Your task to perform on an android device: Go to notification settings Image 0: 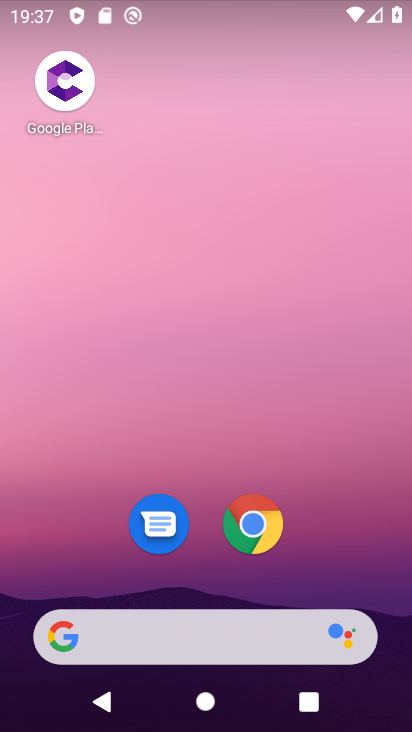
Step 0: drag from (316, 508) to (301, 61)
Your task to perform on an android device: Go to notification settings Image 1: 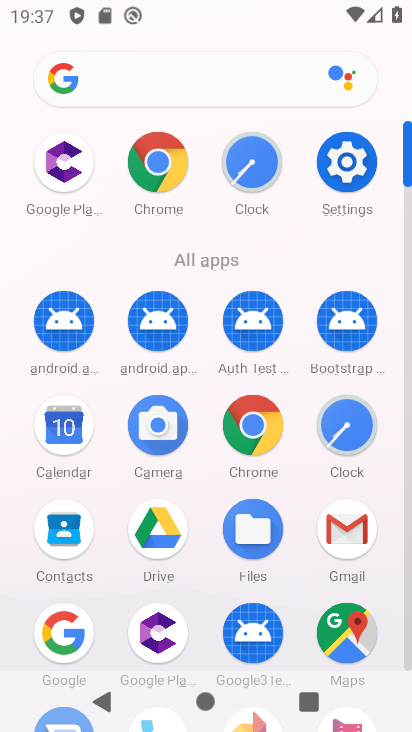
Step 1: click (346, 164)
Your task to perform on an android device: Go to notification settings Image 2: 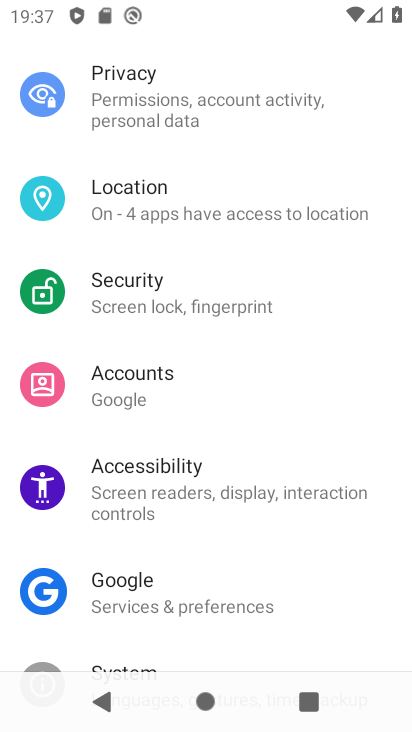
Step 2: drag from (250, 148) to (235, 550)
Your task to perform on an android device: Go to notification settings Image 3: 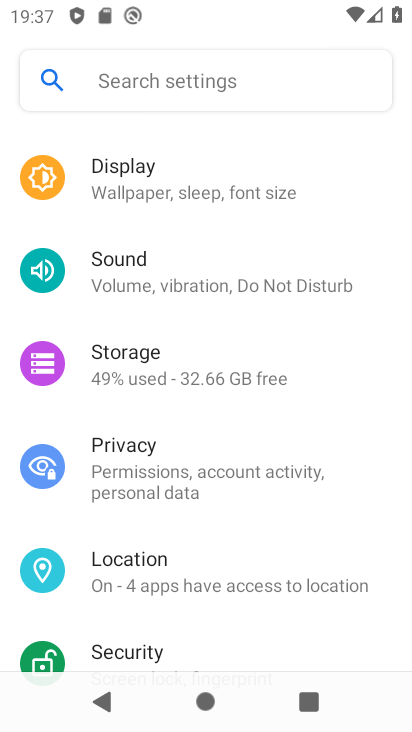
Step 3: drag from (220, 241) to (213, 536)
Your task to perform on an android device: Go to notification settings Image 4: 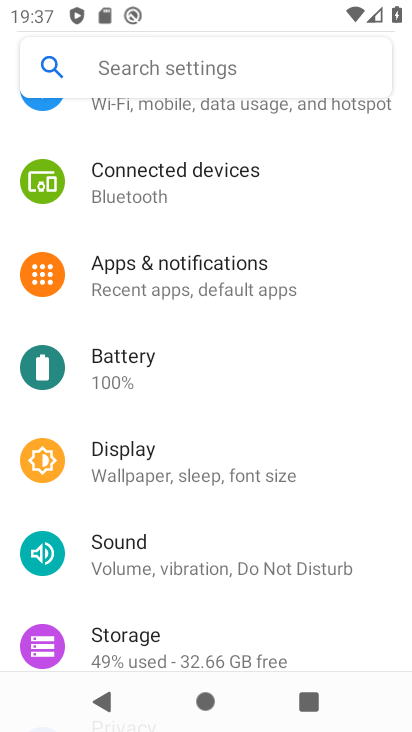
Step 4: click (234, 269)
Your task to perform on an android device: Go to notification settings Image 5: 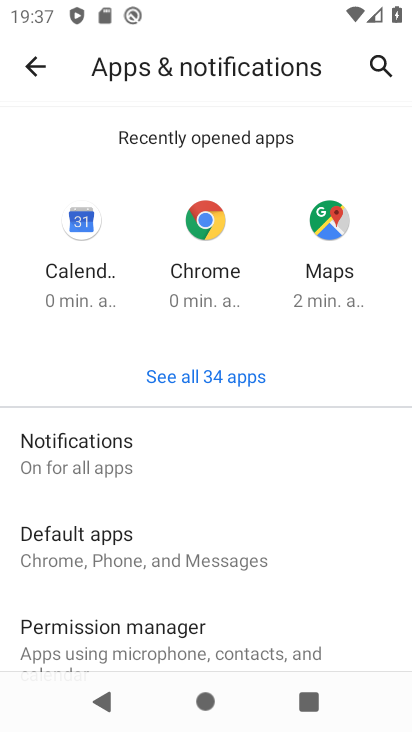
Step 5: click (96, 451)
Your task to perform on an android device: Go to notification settings Image 6: 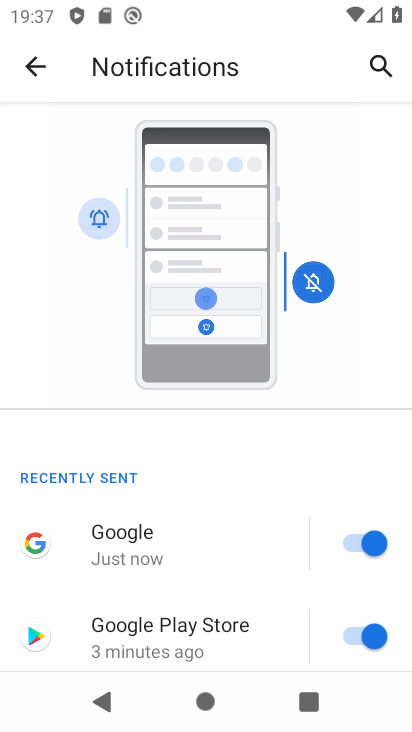
Step 6: task complete